Your task to perform on an android device: Open battery settings Image 0: 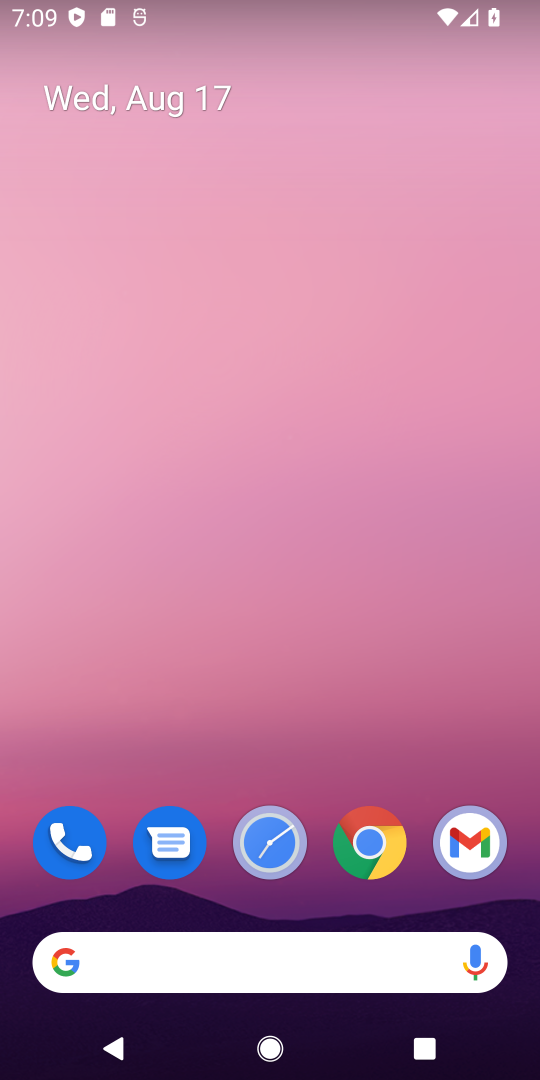
Step 0: drag from (233, 711) to (203, 8)
Your task to perform on an android device: Open battery settings Image 1: 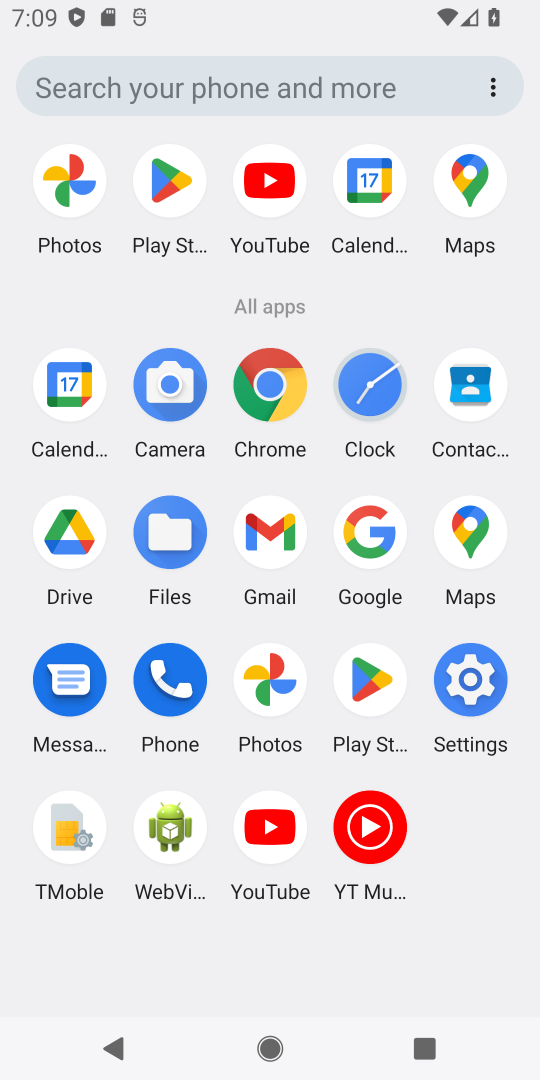
Step 1: click (462, 678)
Your task to perform on an android device: Open battery settings Image 2: 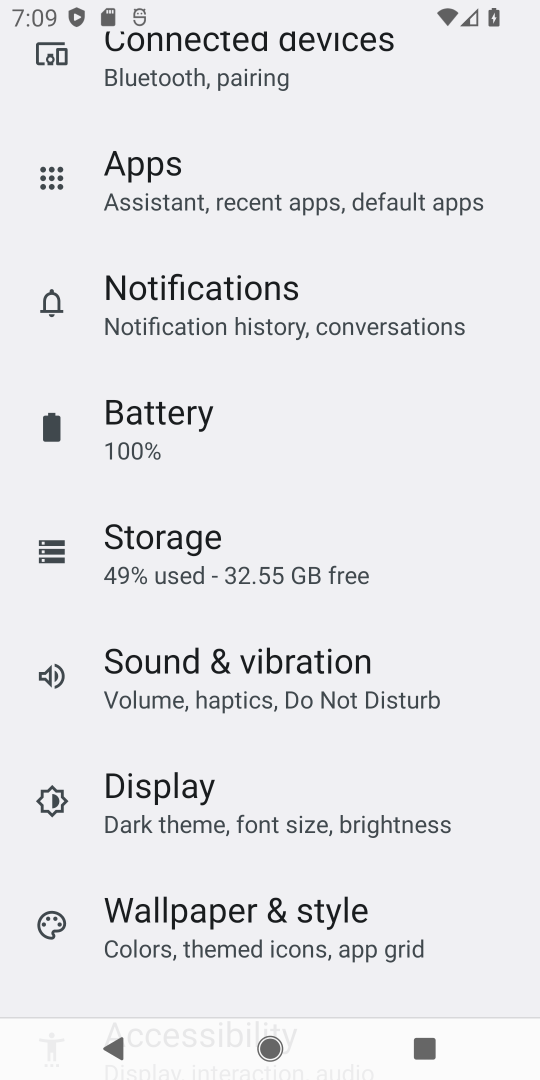
Step 2: click (190, 423)
Your task to perform on an android device: Open battery settings Image 3: 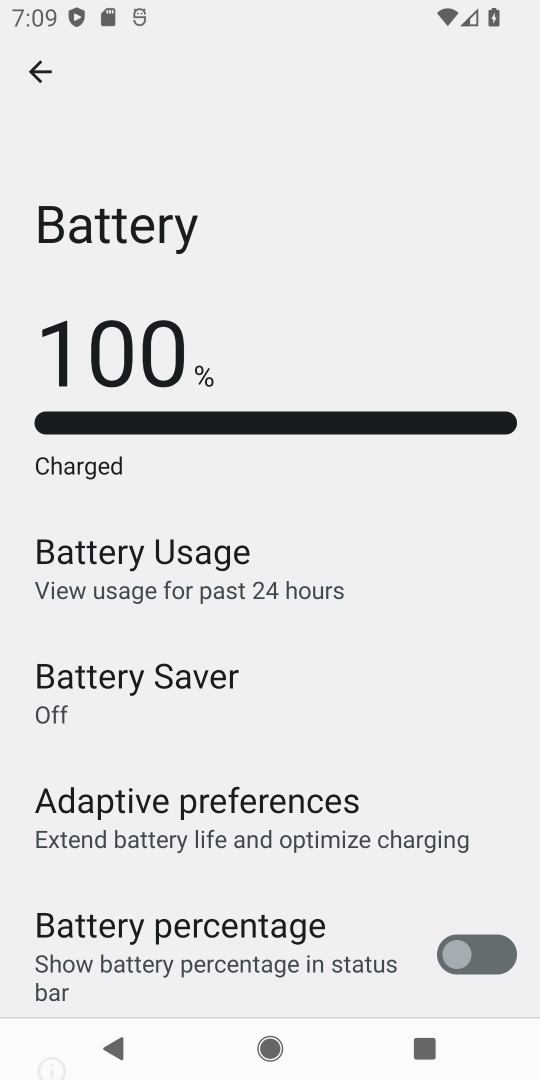
Step 3: task complete